Your task to perform on an android device: toggle data saver in the chrome app Image 0: 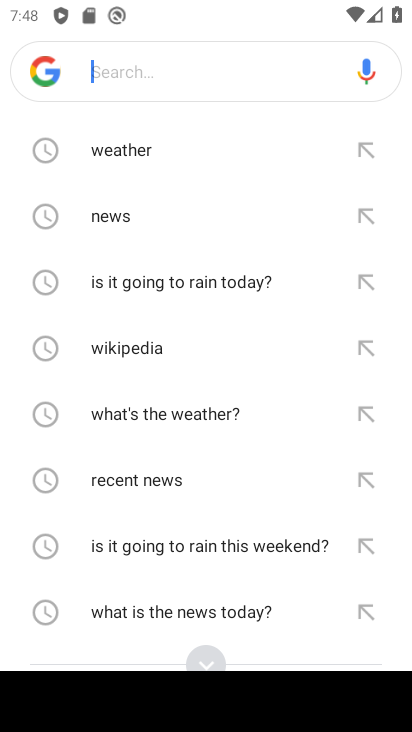
Step 0: press back button
Your task to perform on an android device: toggle data saver in the chrome app Image 1: 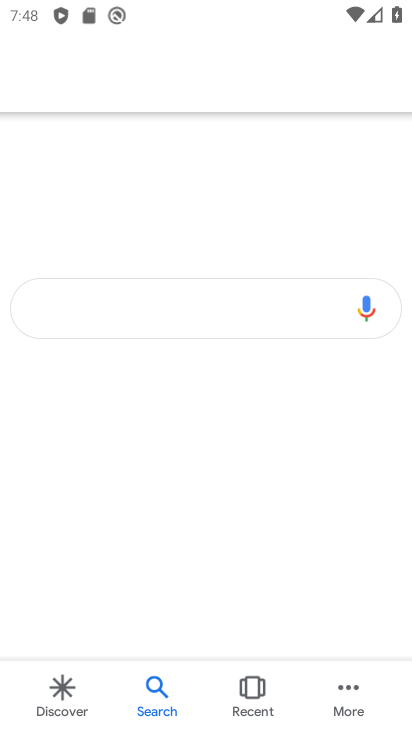
Step 1: press back button
Your task to perform on an android device: toggle data saver in the chrome app Image 2: 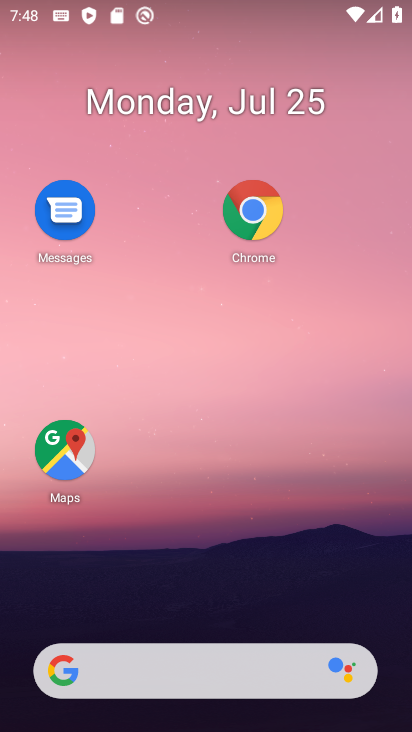
Step 2: click (240, 239)
Your task to perform on an android device: toggle data saver in the chrome app Image 3: 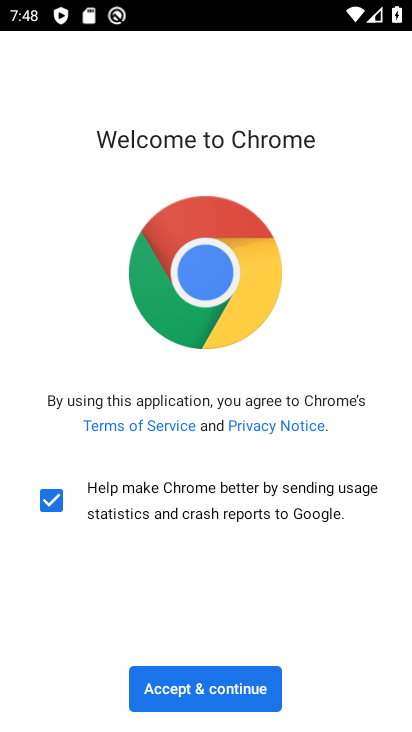
Step 3: click (211, 656)
Your task to perform on an android device: toggle data saver in the chrome app Image 4: 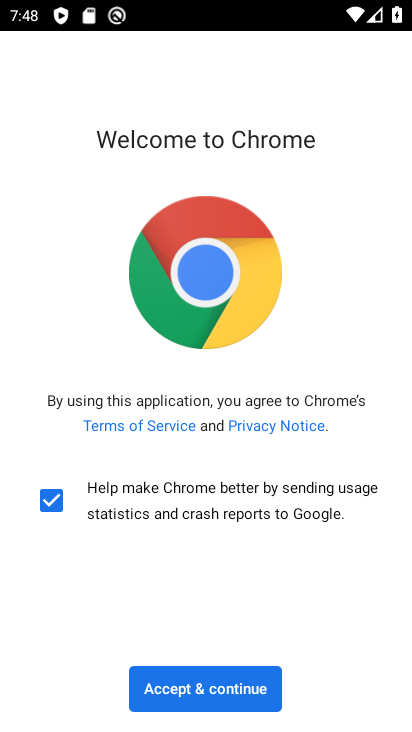
Step 4: click (210, 671)
Your task to perform on an android device: toggle data saver in the chrome app Image 5: 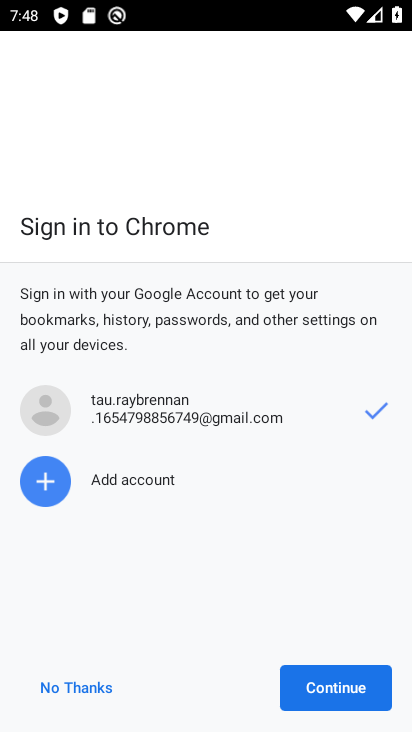
Step 5: click (322, 669)
Your task to perform on an android device: toggle data saver in the chrome app Image 6: 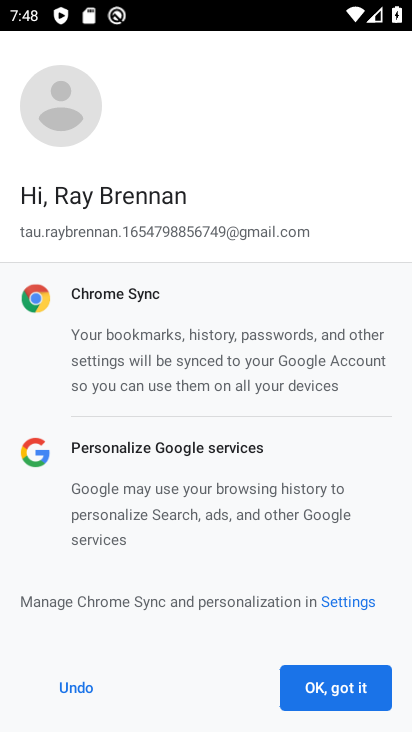
Step 6: click (322, 669)
Your task to perform on an android device: toggle data saver in the chrome app Image 7: 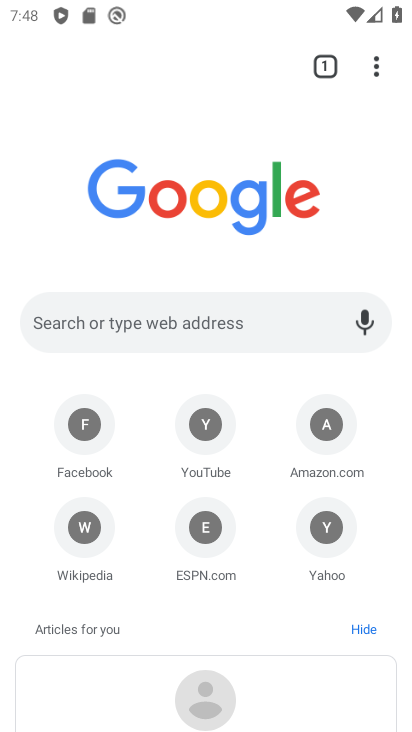
Step 7: click (375, 63)
Your task to perform on an android device: toggle data saver in the chrome app Image 8: 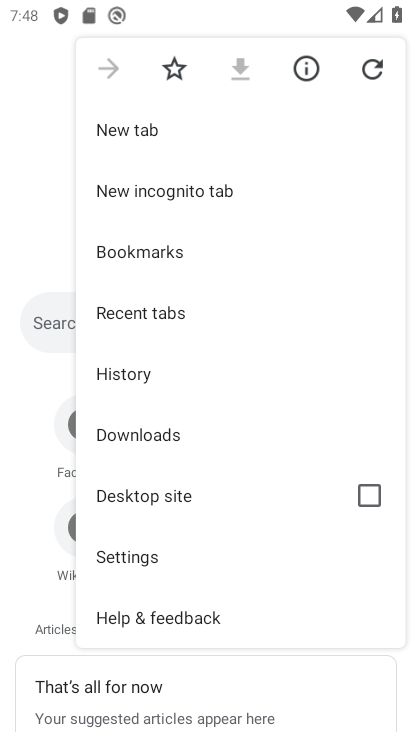
Step 8: click (138, 540)
Your task to perform on an android device: toggle data saver in the chrome app Image 9: 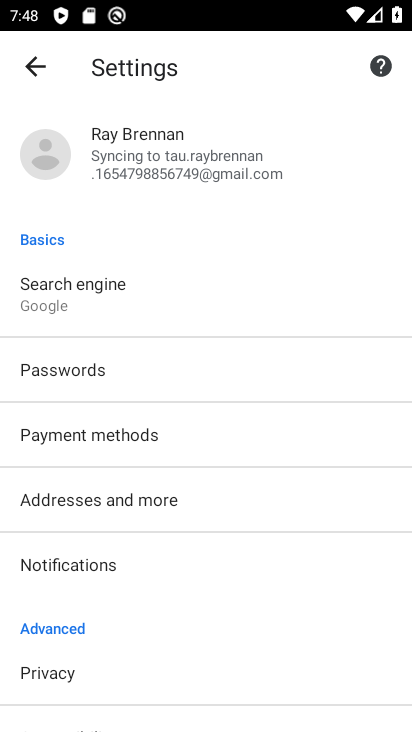
Step 9: drag from (138, 540) to (118, 166)
Your task to perform on an android device: toggle data saver in the chrome app Image 10: 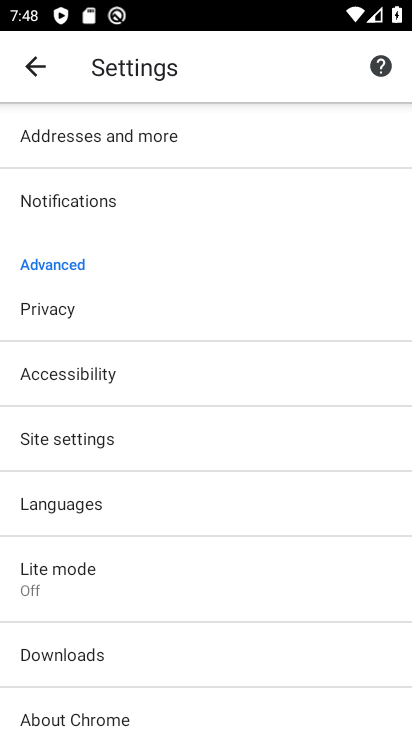
Step 10: click (39, 584)
Your task to perform on an android device: toggle data saver in the chrome app Image 11: 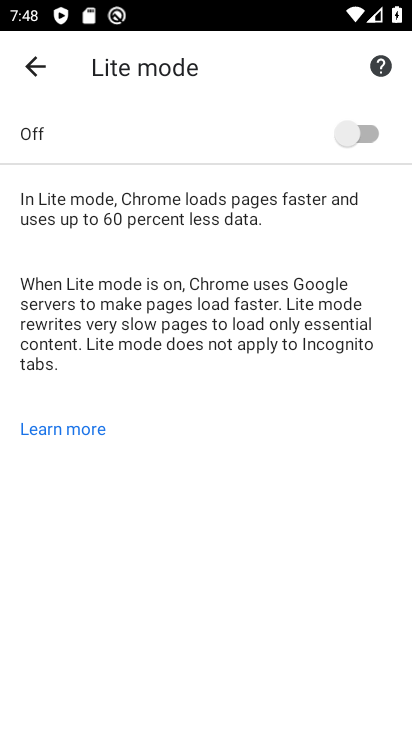
Step 11: click (356, 140)
Your task to perform on an android device: toggle data saver in the chrome app Image 12: 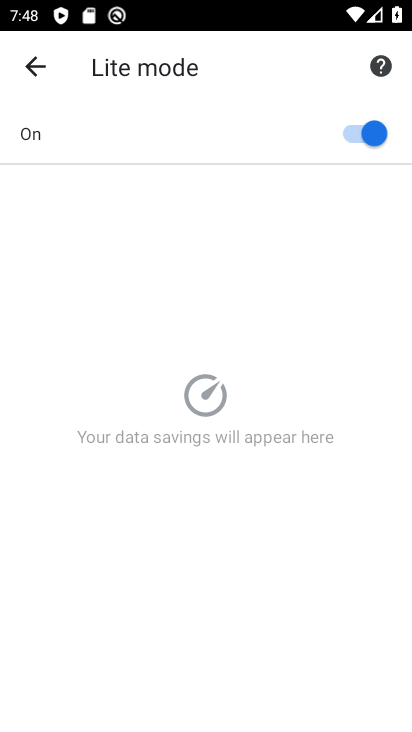
Step 12: task complete